Your task to perform on an android device: turn vacation reply on in the gmail app Image 0: 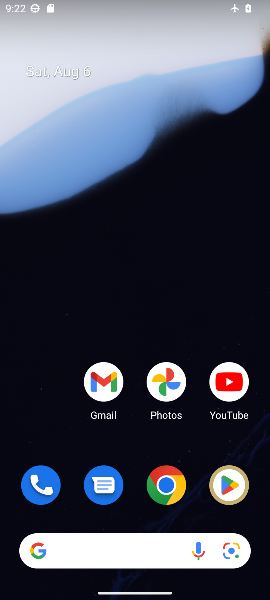
Step 0: drag from (139, 438) to (186, 10)
Your task to perform on an android device: turn vacation reply on in the gmail app Image 1: 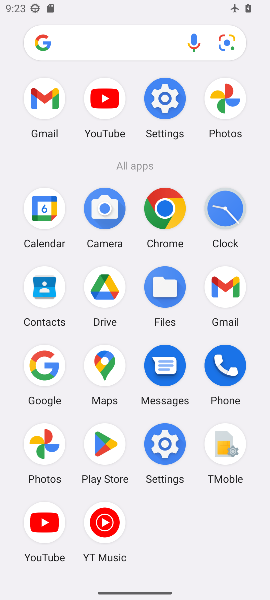
Step 1: click (222, 289)
Your task to perform on an android device: turn vacation reply on in the gmail app Image 2: 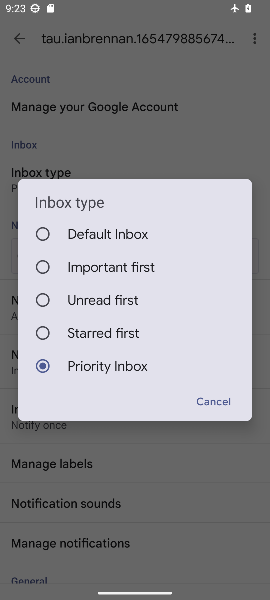
Step 2: click (214, 405)
Your task to perform on an android device: turn vacation reply on in the gmail app Image 3: 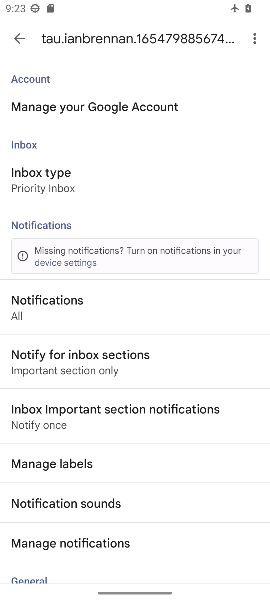
Step 3: drag from (207, 507) to (237, 64)
Your task to perform on an android device: turn vacation reply on in the gmail app Image 4: 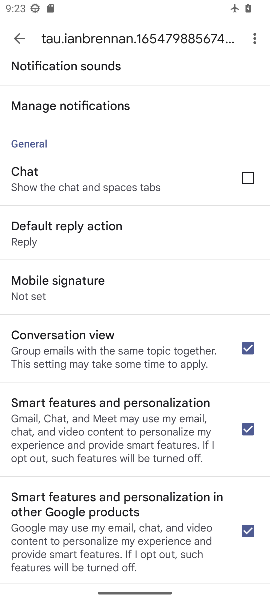
Step 4: drag from (121, 460) to (156, 160)
Your task to perform on an android device: turn vacation reply on in the gmail app Image 5: 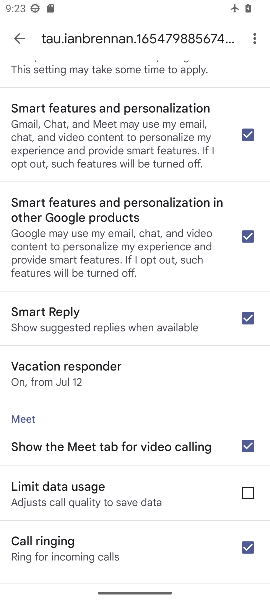
Step 5: click (88, 366)
Your task to perform on an android device: turn vacation reply on in the gmail app Image 6: 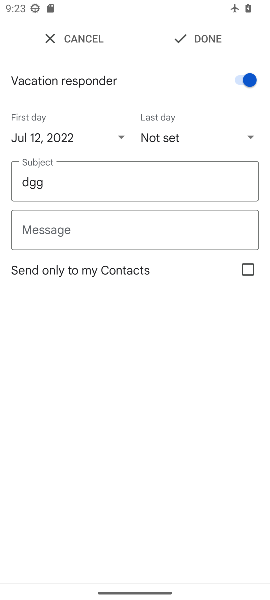
Step 6: task complete